Your task to perform on an android device: open a bookmark in the chrome app Image 0: 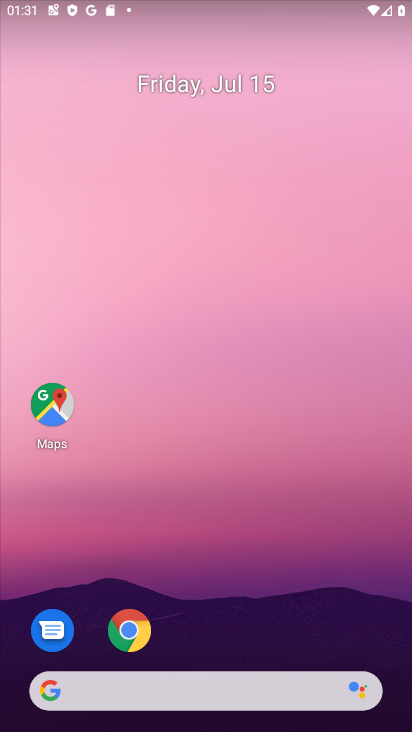
Step 0: click (114, 659)
Your task to perform on an android device: open a bookmark in the chrome app Image 1: 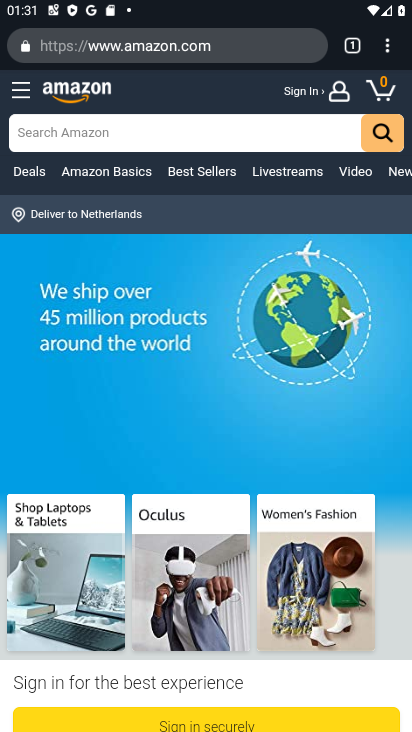
Step 1: click (397, 47)
Your task to perform on an android device: open a bookmark in the chrome app Image 2: 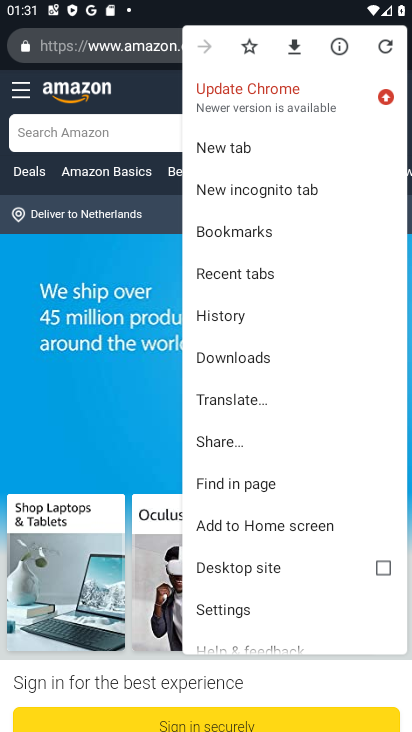
Step 2: click (247, 238)
Your task to perform on an android device: open a bookmark in the chrome app Image 3: 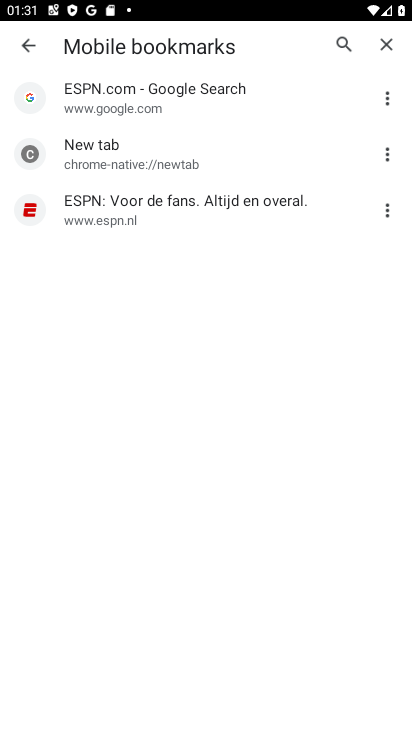
Step 3: task complete